Your task to perform on an android device: allow notifications from all sites in the chrome app Image 0: 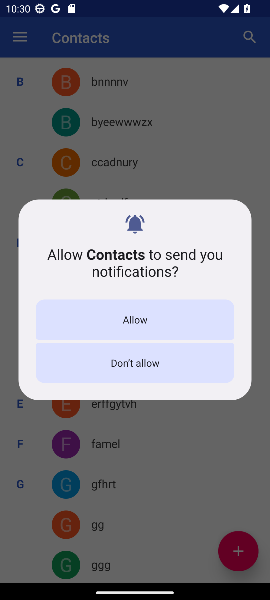
Step 0: press home button
Your task to perform on an android device: allow notifications from all sites in the chrome app Image 1: 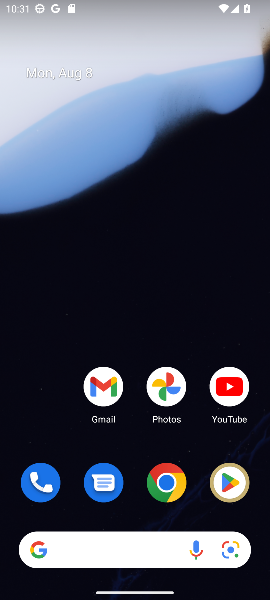
Step 1: click (161, 491)
Your task to perform on an android device: allow notifications from all sites in the chrome app Image 2: 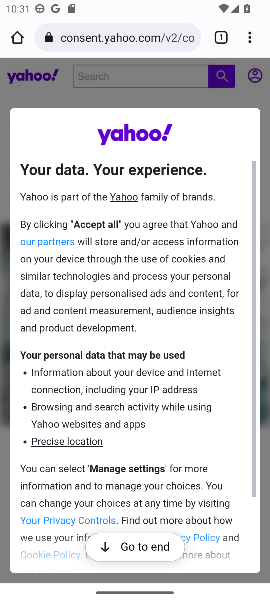
Step 2: click (252, 40)
Your task to perform on an android device: allow notifications from all sites in the chrome app Image 3: 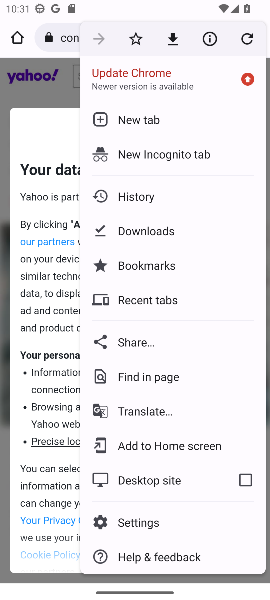
Step 3: click (142, 518)
Your task to perform on an android device: allow notifications from all sites in the chrome app Image 4: 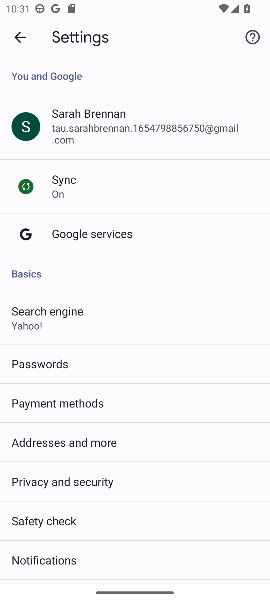
Step 4: click (113, 548)
Your task to perform on an android device: allow notifications from all sites in the chrome app Image 5: 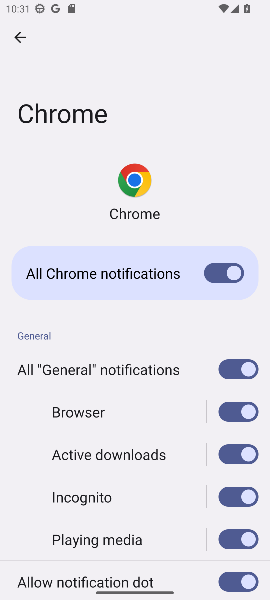
Step 5: task complete